Your task to perform on an android device: check storage Image 0: 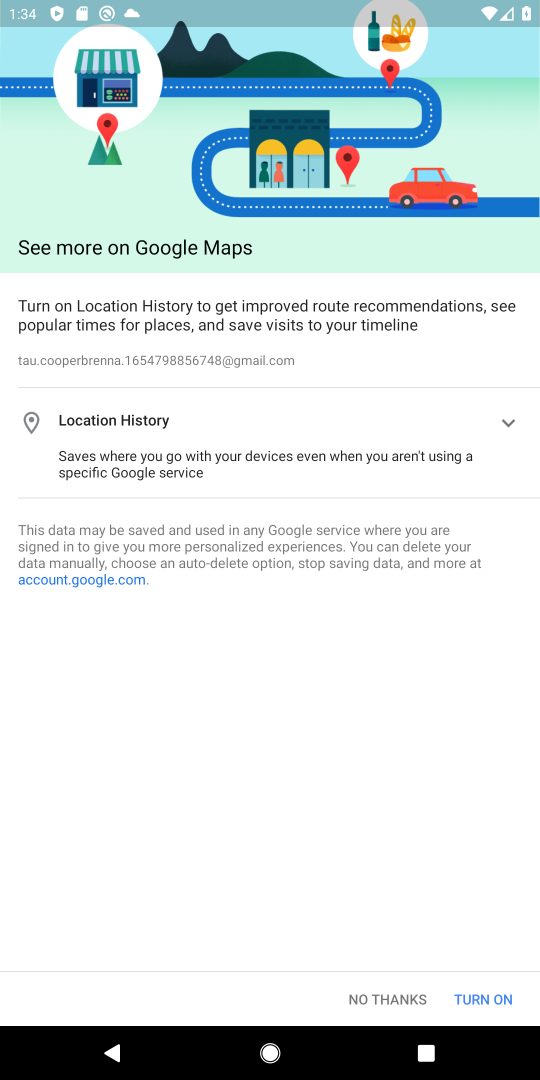
Step 0: press home button
Your task to perform on an android device: check storage Image 1: 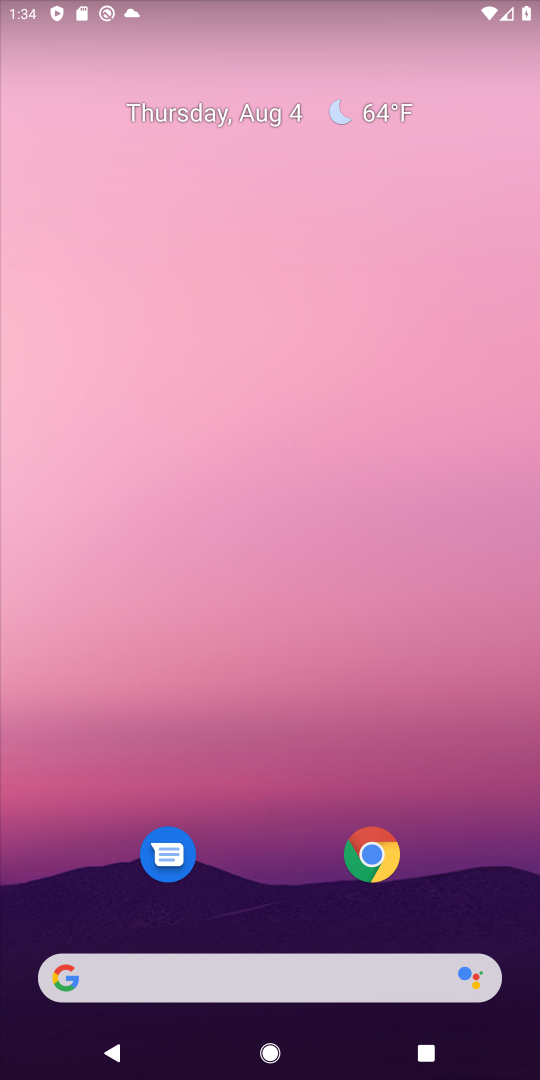
Step 1: drag from (283, 751) to (278, 293)
Your task to perform on an android device: check storage Image 2: 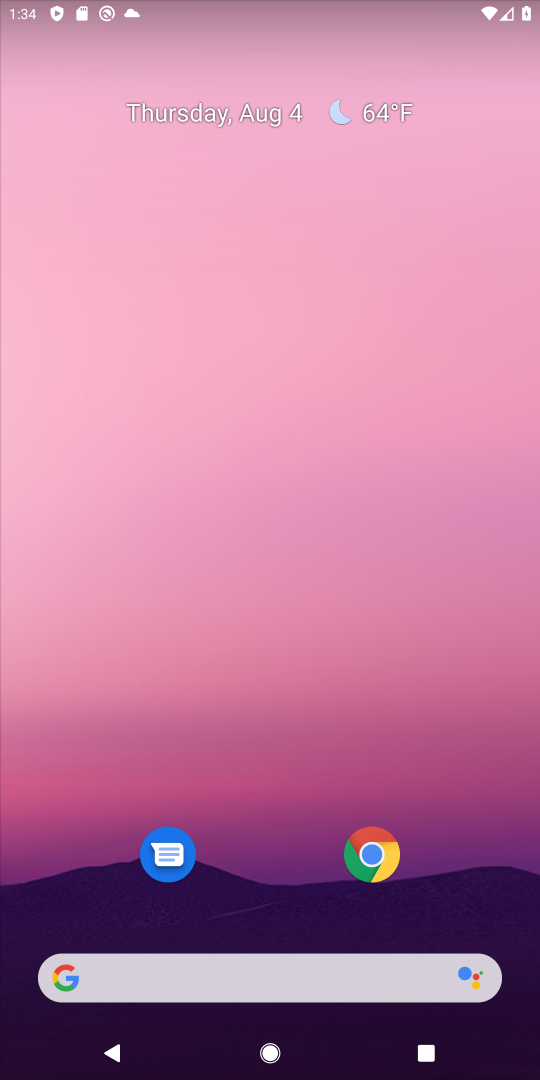
Step 2: drag from (279, 688) to (230, 123)
Your task to perform on an android device: check storage Image 3: 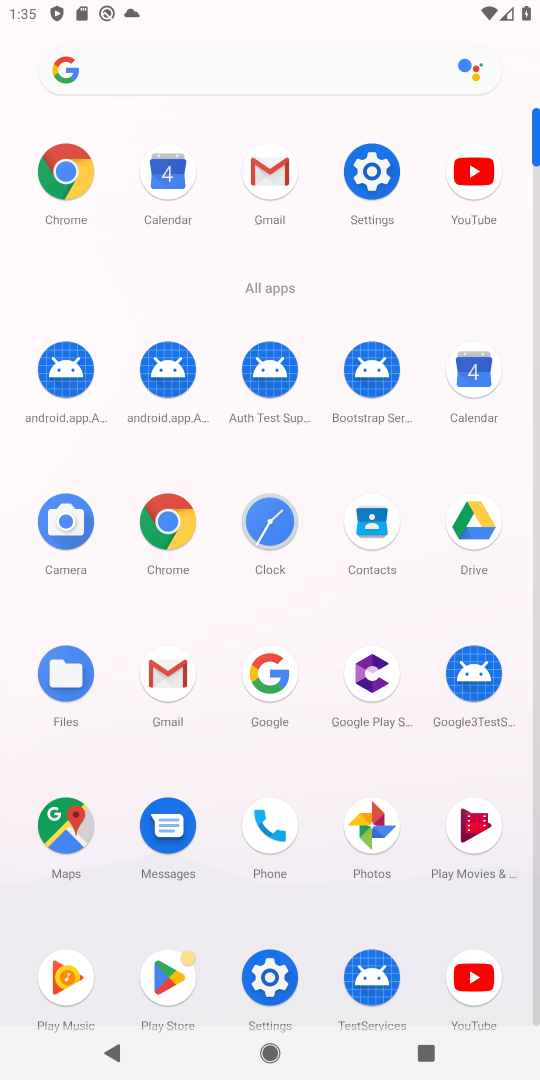
Step 3: click (369, 173)
Your task to perform on an android device: check storage Image 4: 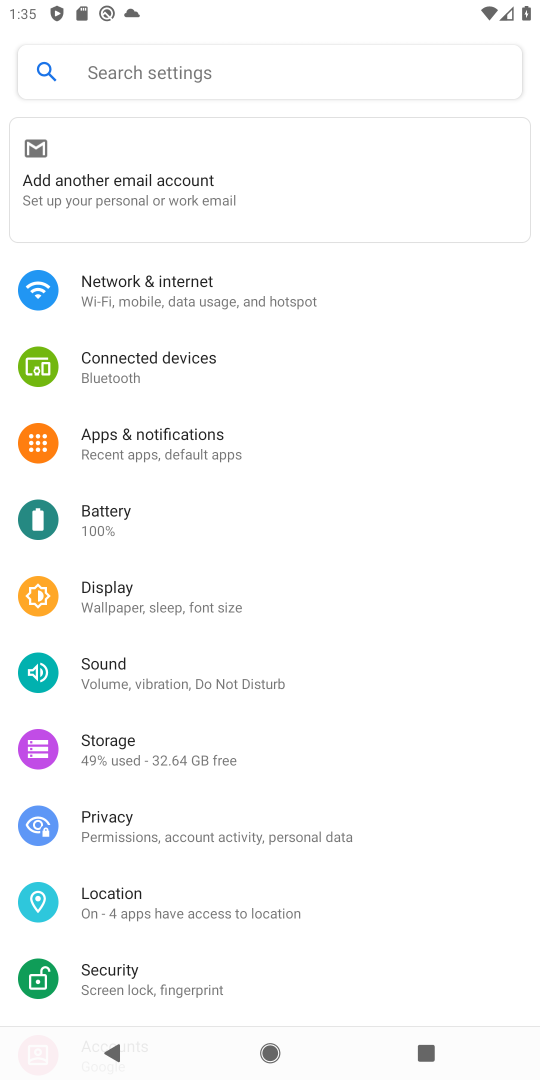
Step 4: click (183, 745)
Your task to perform on an android device: check storage Image 5: 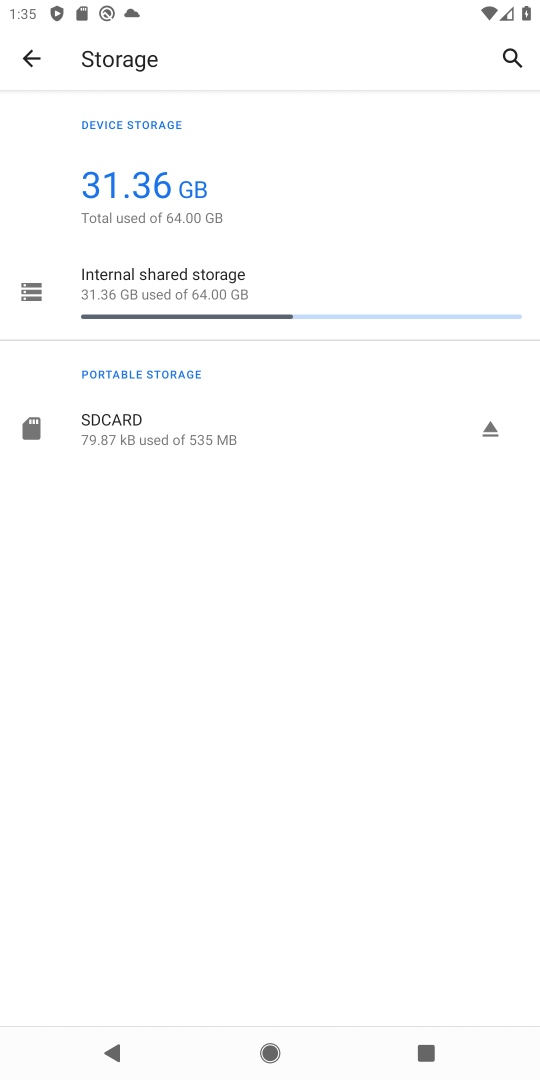
Step 5: task complete